Your task to perform on an android device: change notification settings in the gmail app Image 0: 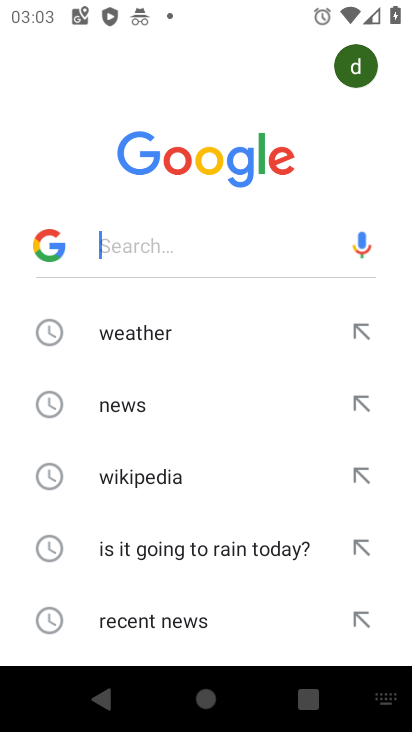
Step 0: press back button
Your task to perform on an android device: change notification settings in the gmail app Image 1: 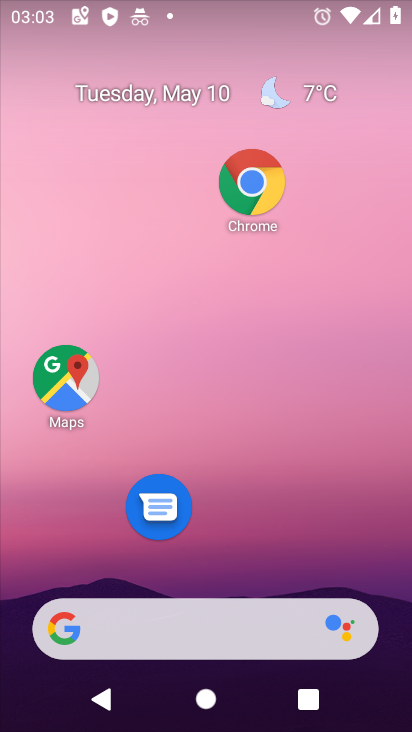
Step 1: drag from (257, 585) to (220, 76)
Your task to perform on an android device: change notification settings in the gmail app Image 2: 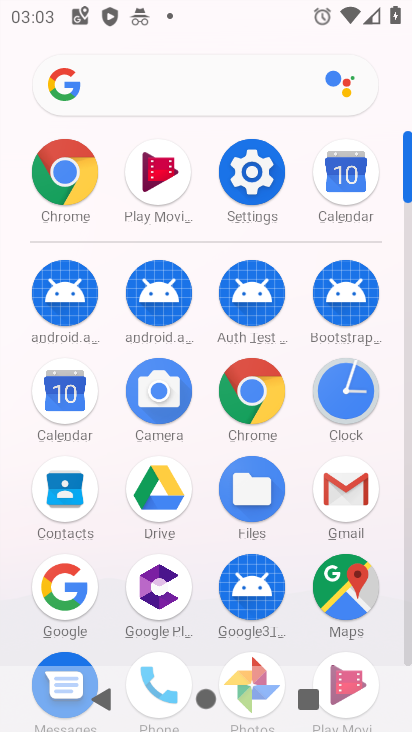
Step 2: click (332, 481)
Your task to perform on an android device: change notification settings in the gmail app Image 3: 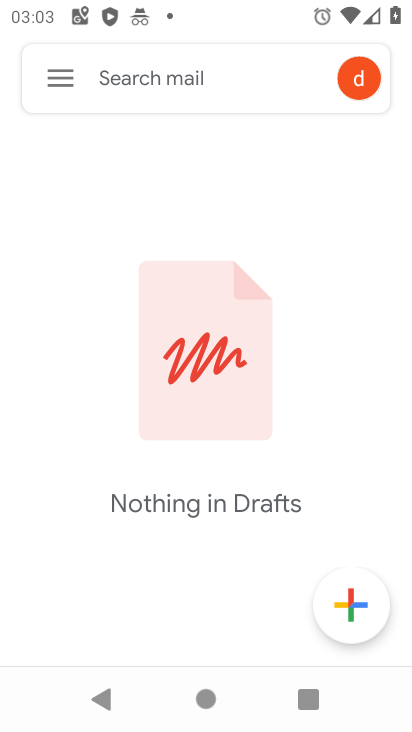
Step 3: click (45, 80)
Your task to perform on an android device: change notification settings in the gmail app Image 4: 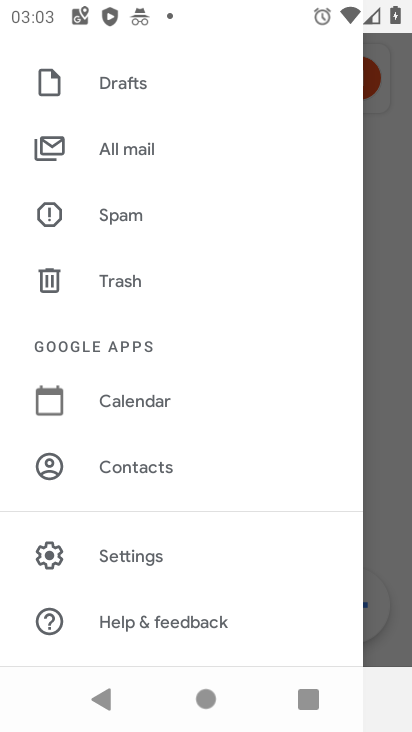
Step 4: click (45, 80)
Your task to perform on an android device: change notification settings in the gmail app Image 5: 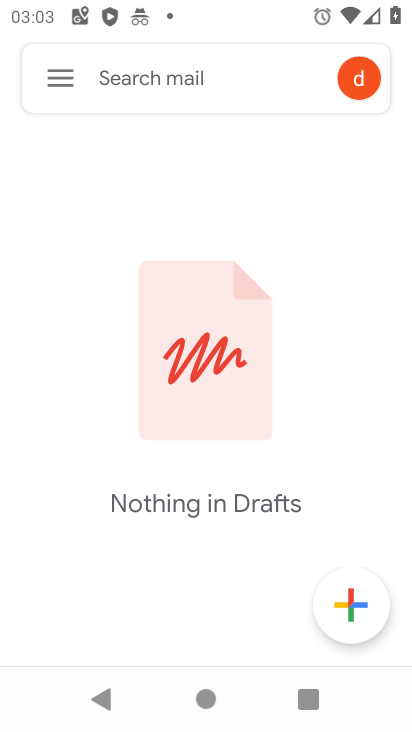
Step 5: click (45, 80)
Your task to perform on an android device: change notification settings in the gmail app Image 6: 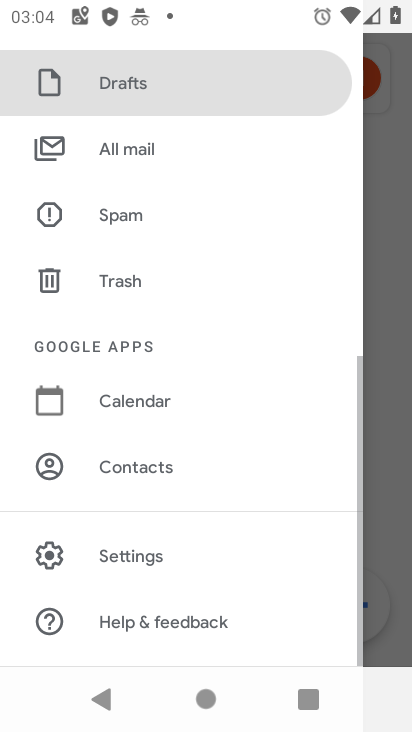
Step 6: click (45, 80)
Your task to perform on an android device: change notification settings in the gmail app Image 7: 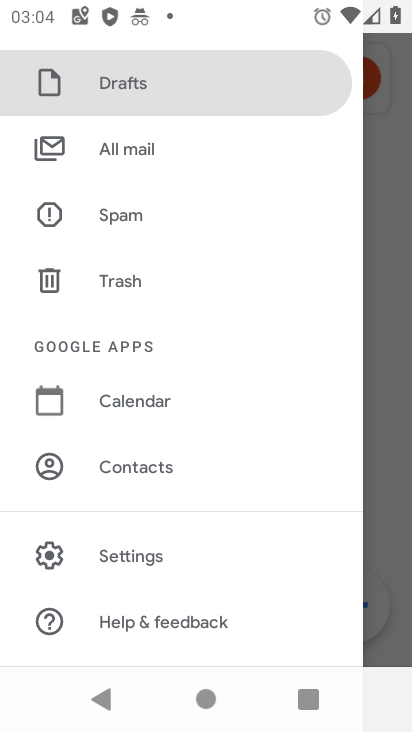
Step 7: click (45, 80)
Your task to perform on an android device: change notification settings in the gmail app Image 8: 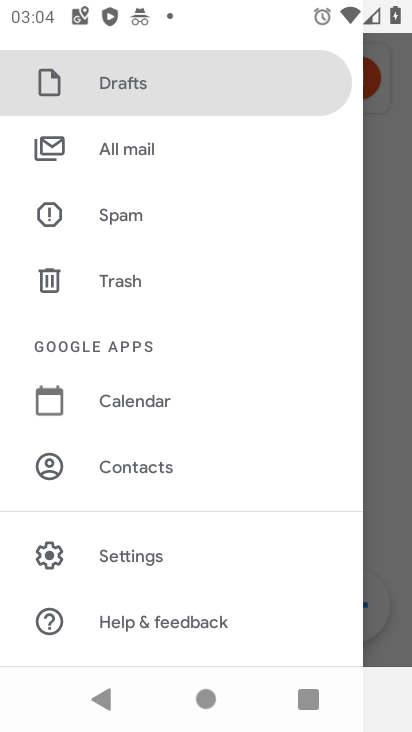
Step 8: click (147, 535)
Your task to perform on an android device: change notification settings in the gmail app Image 9: 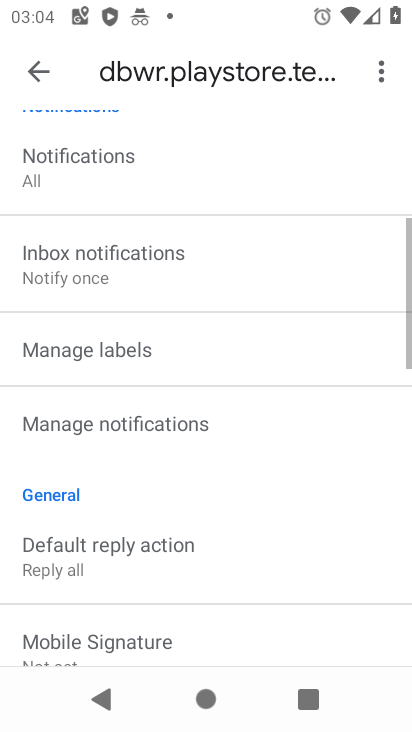
Step 9: drag from (147, 535) to (142, 446)
Your task to perform on an android device: change notification settings in the gmail app Image 10: 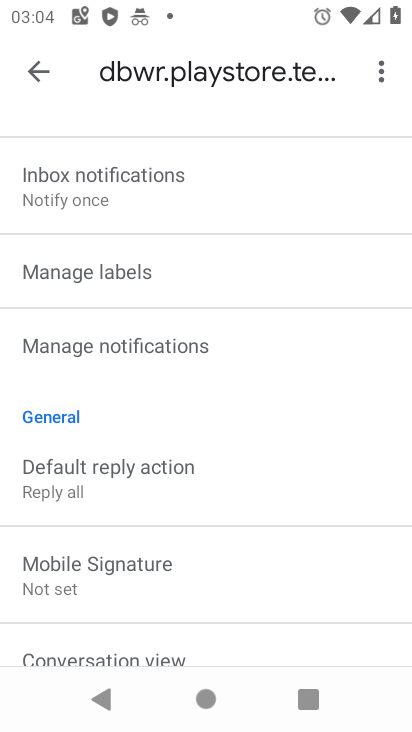
Step 10: click (129, 359)
Your task to perform on an android device: change notification settings in the gmail app Image 11: 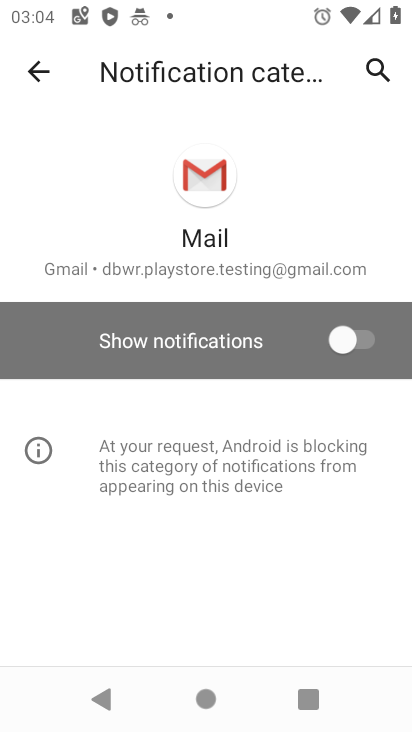
Step 11: click (291, 330)
Your task to perform on an android device: change notification settings in the gmail app Image 12: 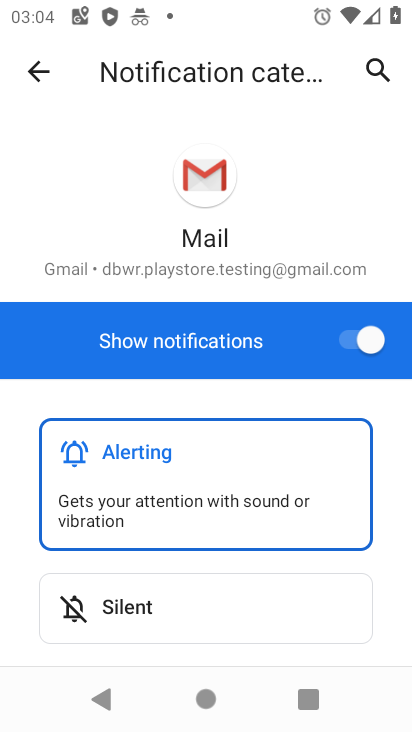
Step 12: task complete